Your task to perform on an android device: Open the stopwatch Image 0: 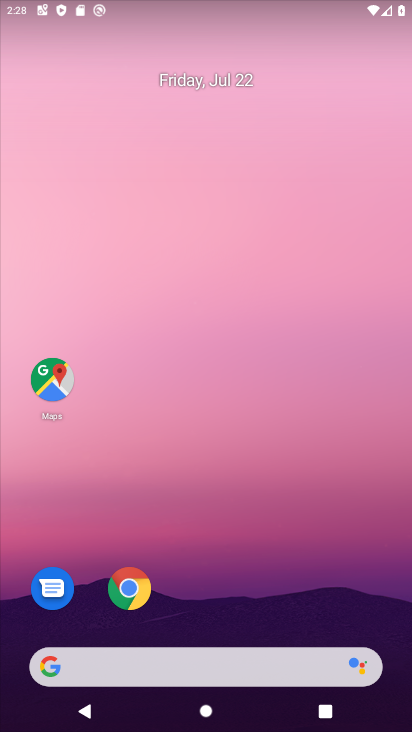
Step 0: drag from (216, 616) to (201, 1)
Your task to perform on an android device: Open the stopwatch Image 1: 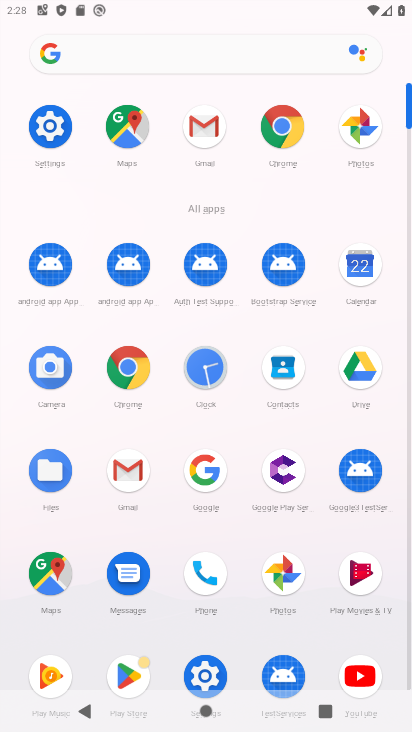
Step 1: click (205, 361)
Your task to perform on an android device: Open the stopwatch Image 2: 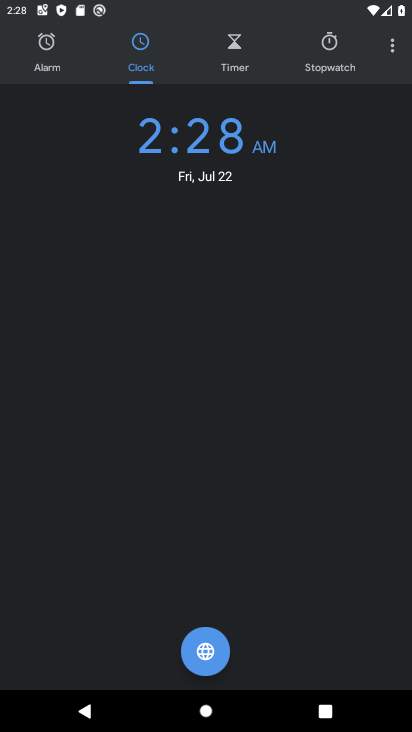
Step 2: click (332, 49)
Your task to perform on an android device: Open the stopwatch Image 3: 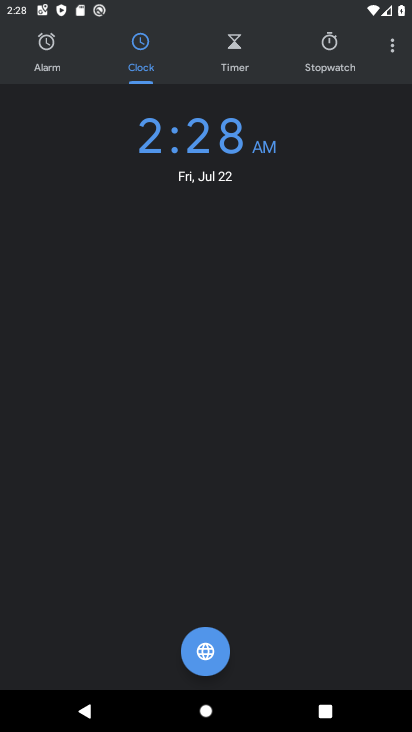
Step 3: click (332, 40)
Your task to perform on an android device: Open the stopwatch Image 4: 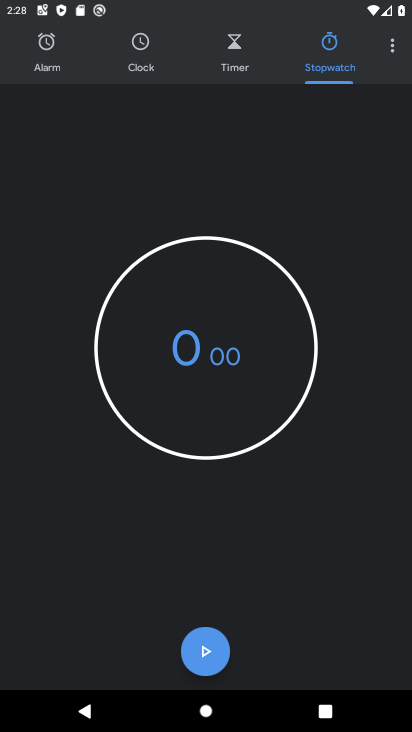
Step 4: click (204, 642)
Your task to perform on an android device: Open the stopwatch Image 5: 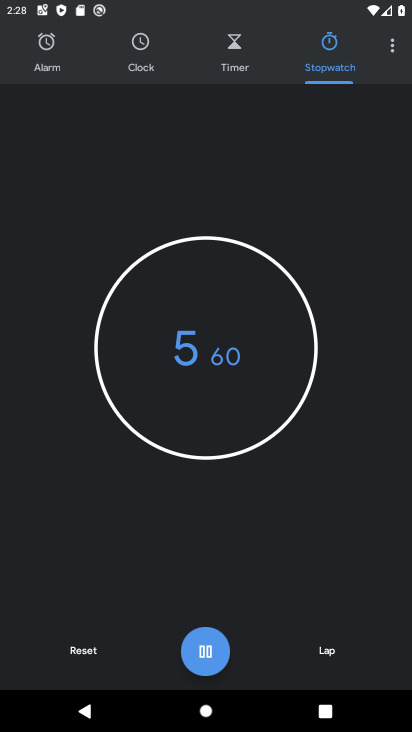
Step 5: task complete